Your task to perform on an android device: Open Android settings Image 0: 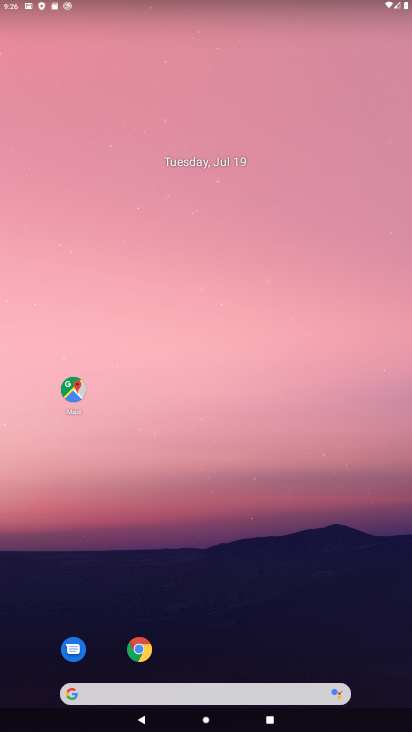
Step 0: drag from (373, 640) to (207, 115)
Your task to perform on an android device: Open Android settings Image 1: 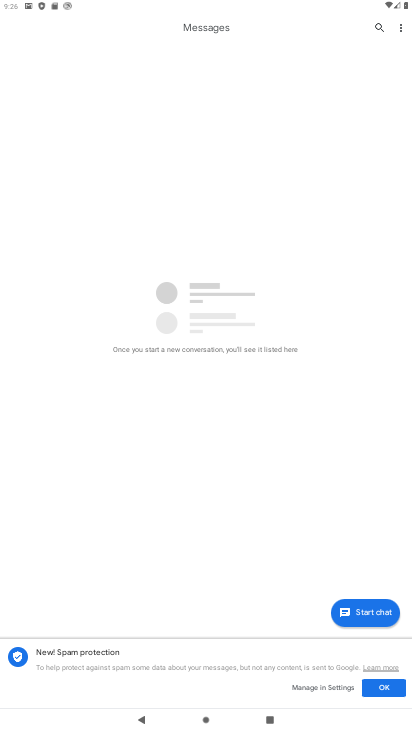
Step 1: press home button
Your task to perform on an android device: Open Android settings Image 2: 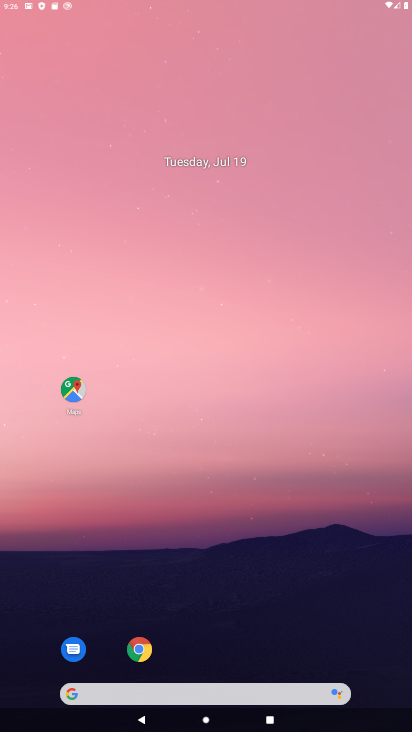
Step 2: drag from (397, 649) to (213, 110)
Your task to perform on an android device: Open Android settings Image 3: 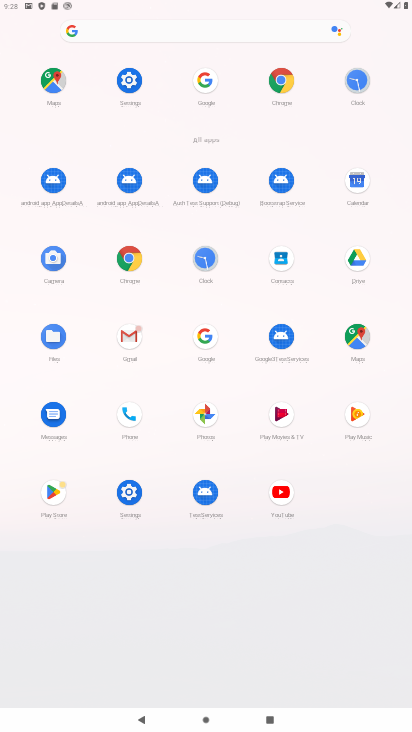
Step 3: click (134, 487)
Your task to perform on an android device: Open Android settings Image 4: 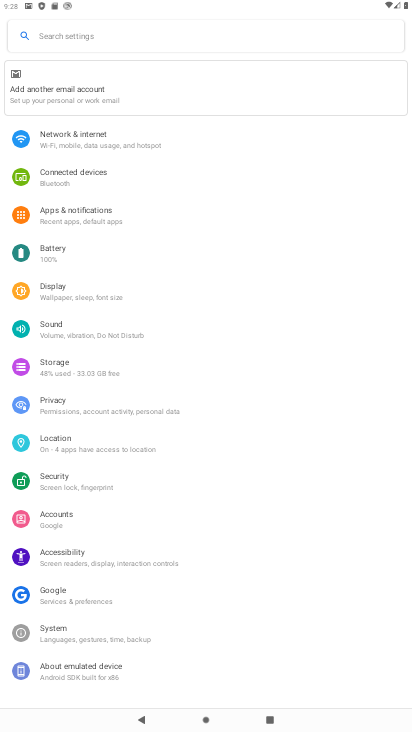
Step 4: task complete